Your task to perform on an android device: turn on data saver in the chrome app Image 0: 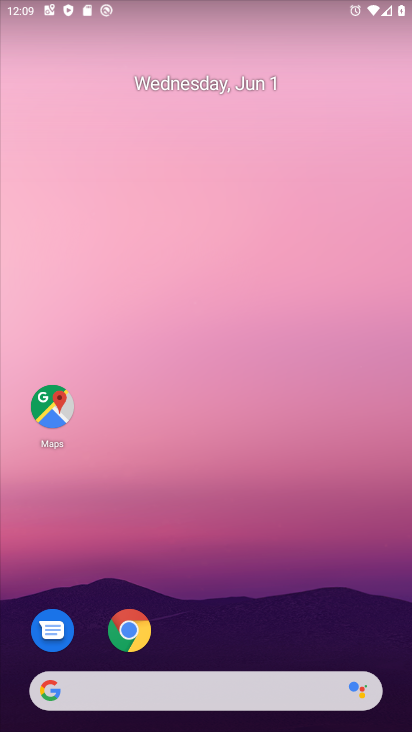
Step 0: click (123, 641)
Your task to perform on an android device: turn on data saver in the chrome app Image 1: 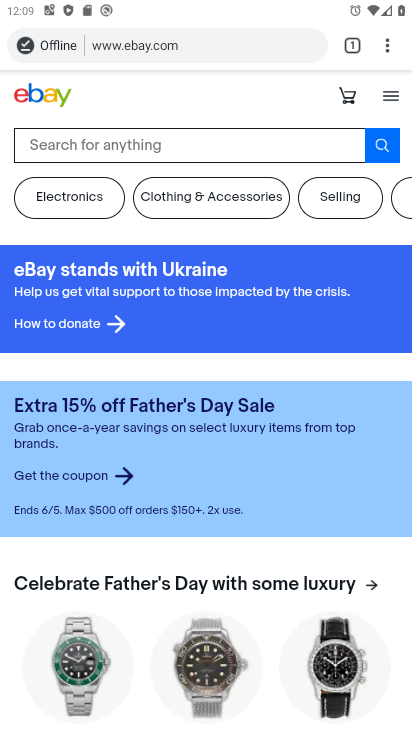
Step 1: click (394, 48)
Your task to perform on an android device: turn on data saver in the chrome app Image 2: 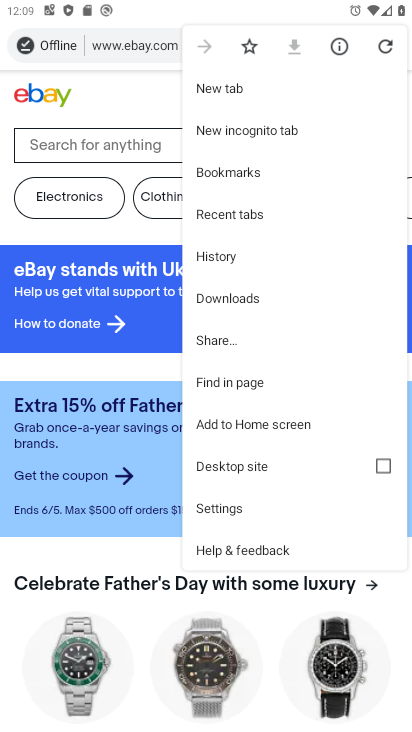
Step 2: click (234, 510)
Your task to perform on an android device: turn on data saver in the chrome app Image 3: 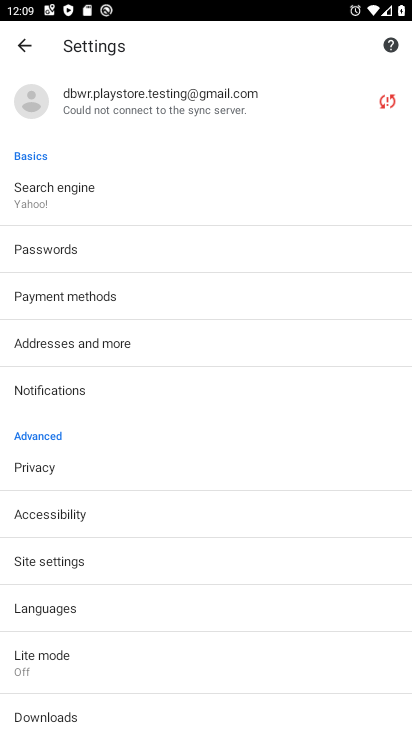
Step 3: click (59, 673)
Your task to perform on an android device: turn on data saver in the chrome app Image 4: 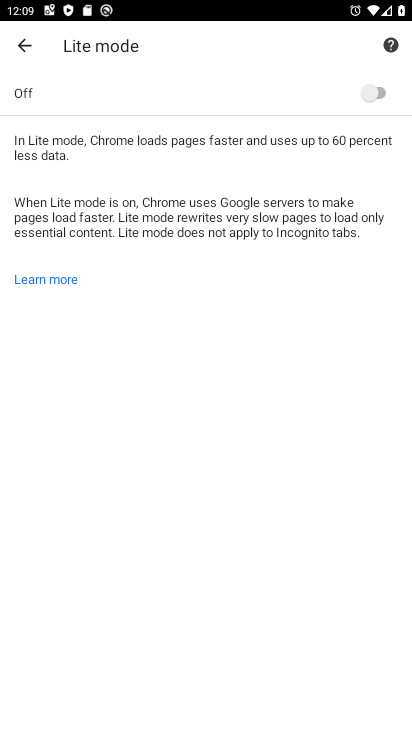
Step 4: click (373, 96)
Your task to perform on an android device: turn on data saver in the chrome app Image 5: 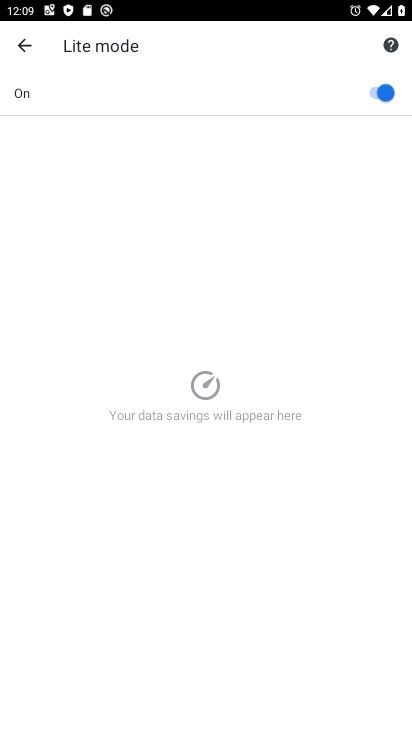
Step 5: task complete